Your task to perform on an android device: Open Google Chrome and click the shortcut for Amazon.com Image 0: 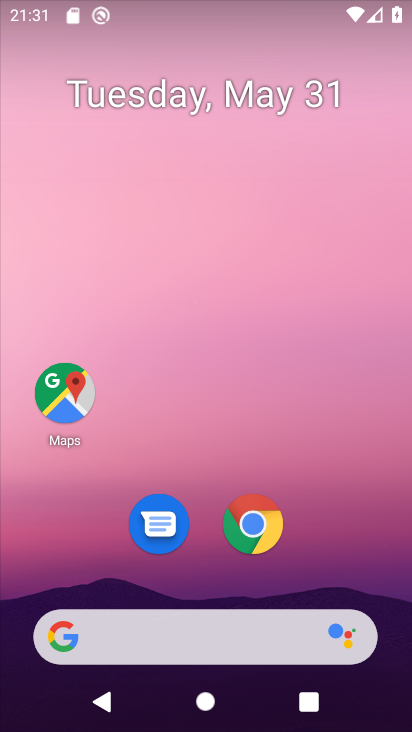
Step 0: click (265, 517)
Your task to perform on an android device: Open Google Chrome and click the shortcut for Amazon.com Image 1: 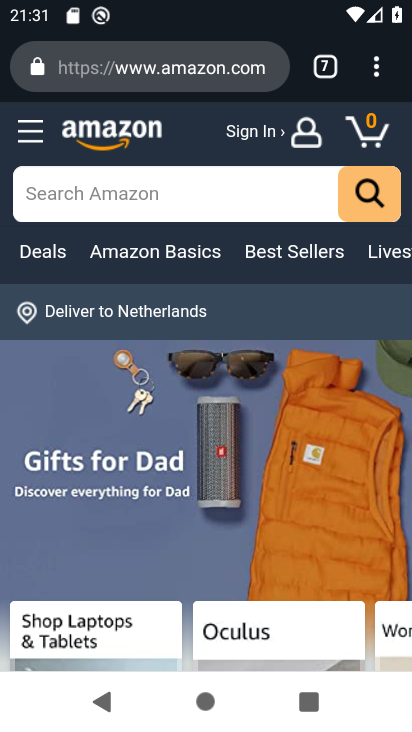
Step 1: task complete